Your task to perform on an android device: Go to Maps Image 0: 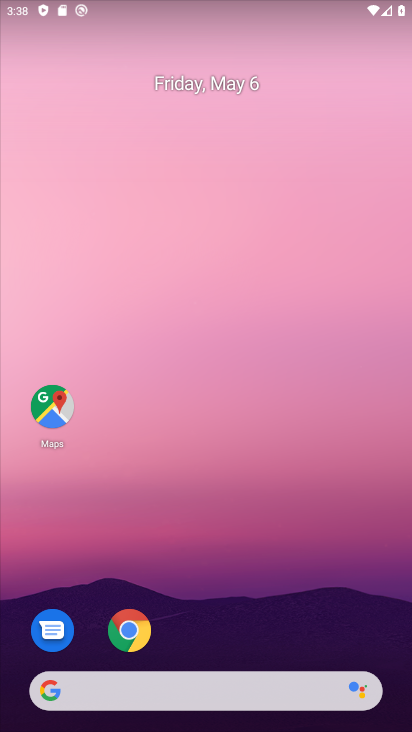
Step 0: click (54, 404)
Your task to perform on an android device: Go to Maps Image 1: 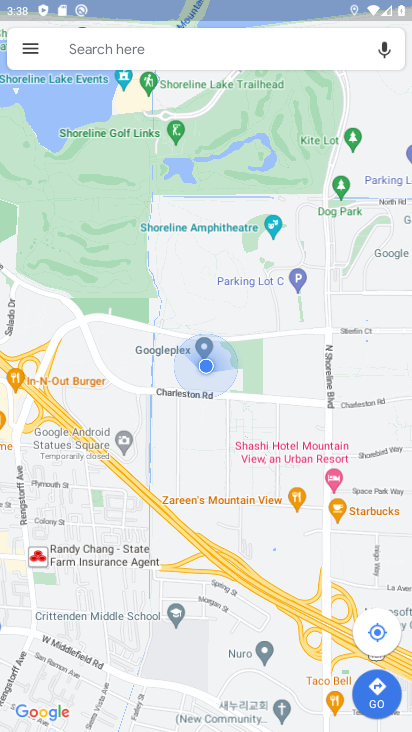
Step 1: task complete